Your task to perform on an android device: Open calendar and show me the fourth week of next month Image 0: 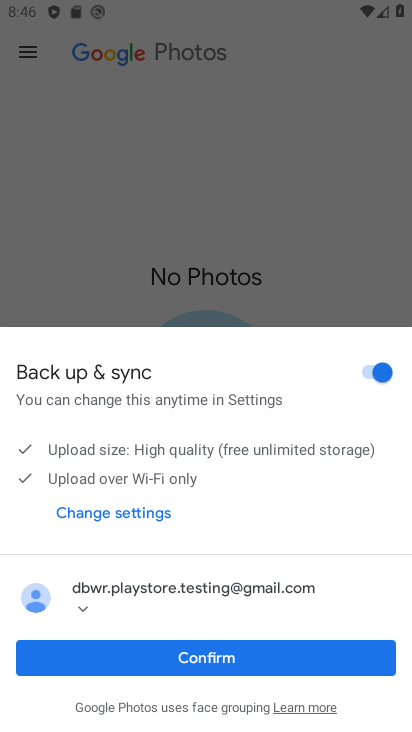
Step 0: press home button
Your task to perform on an android device: Open calendar and show me the fourth week of next month Image 1: 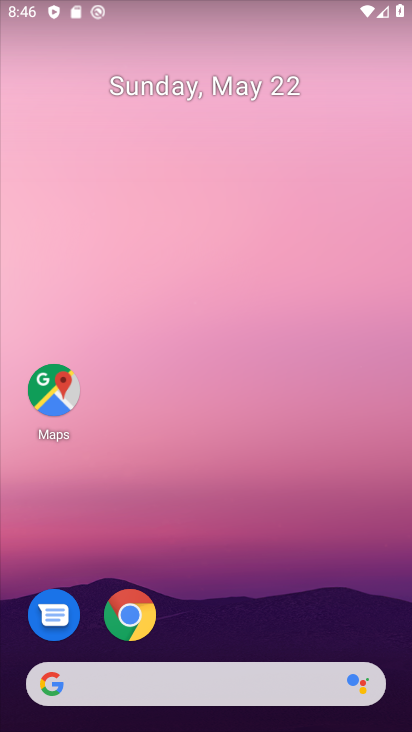
Step 1: drag from (274, 573) to (270, 317)
Your task to perform on an android device: Open calendar and show me the fourth week of next month Image 2: 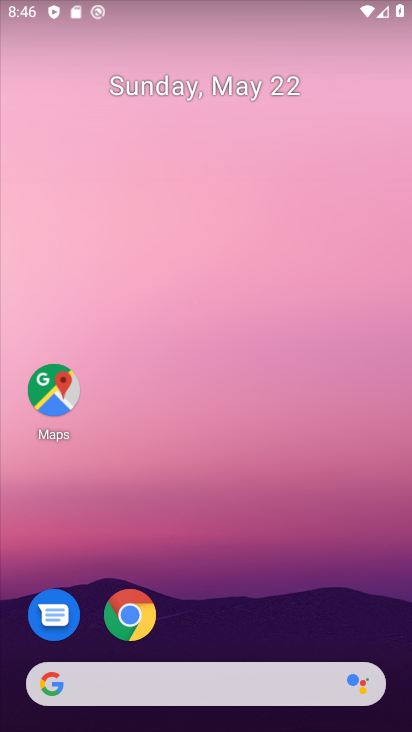
Step 2: drag from (272, 630) to (275, 323)
Your task to perform on an android device: Open calendar and show me the fourth week of next month Image 3: 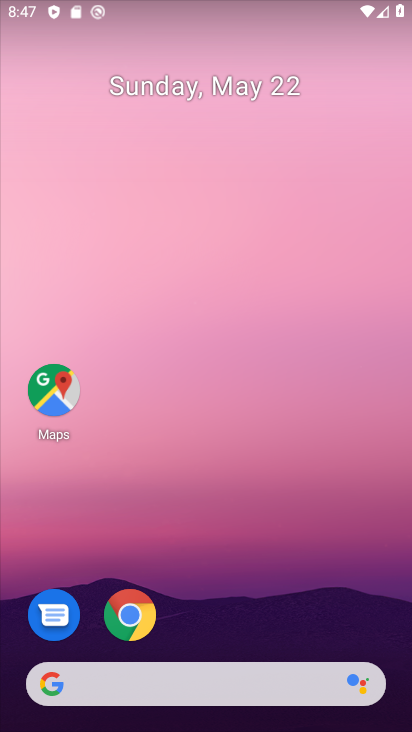
Step 3: drag from (249, 633) to (249, 264)
Your task to perform on an android device: Open calendar and show me the fourth week of next month Image 4: 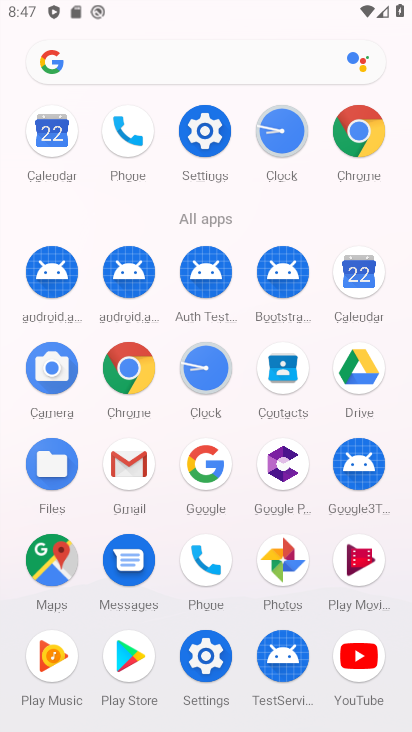
Step 4: click (359, 273)
Your task to perform on an android device: Open calendar and show me the fourth week of next month Image 5: 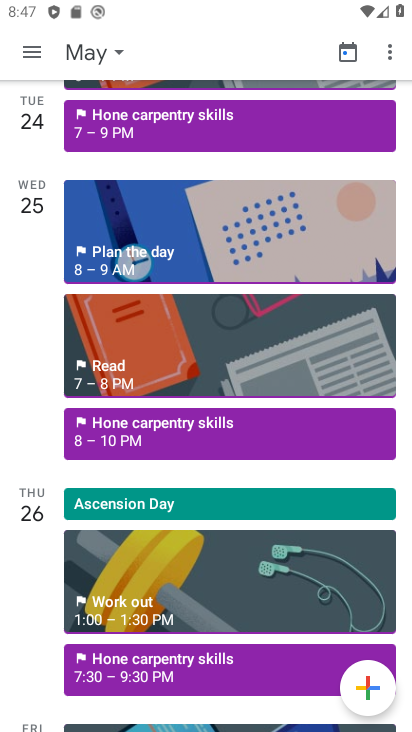
Step 5: click (32, 60)
Your task to perform on an android device: Open calendar and show me the fourth week of next month Image 6: 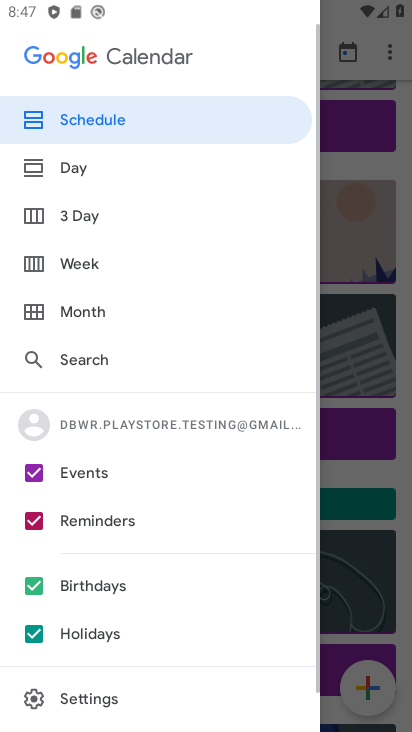
Step 6: click (96, 312)
Your task to perform on an android device: Open calendar and show me the fourth week of next month Image 7: 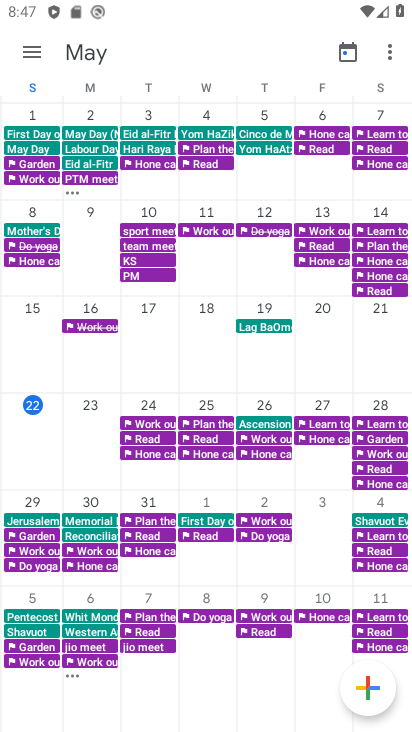
Step 7: task complete